Your task to perform on an android device: remove spam from my inbox in the gmail app Image 0: 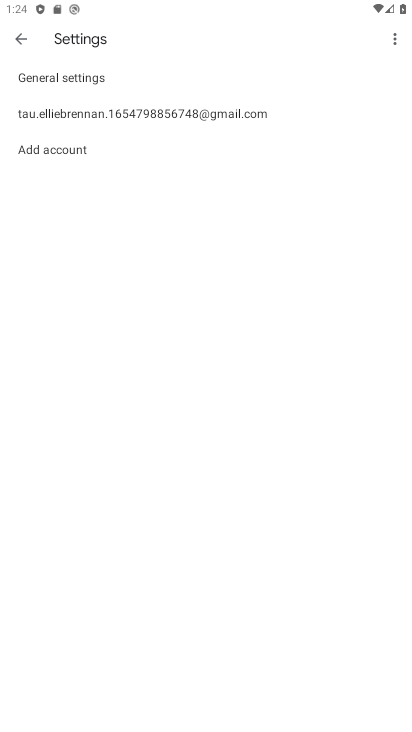
Step 0: click (22, 36)
Your task to perform on an android device: remove spam from my inbox in the gmail app Image 1: 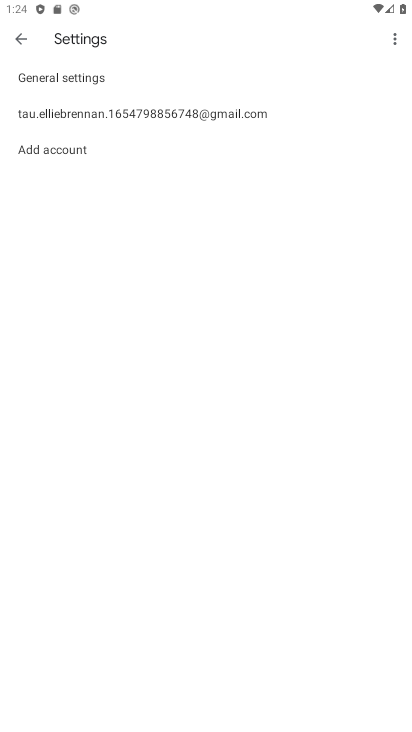
Step 1: click (29, 36)
Your task to perform on an android device: remove spam from my inbox in the gmail app Image 2: 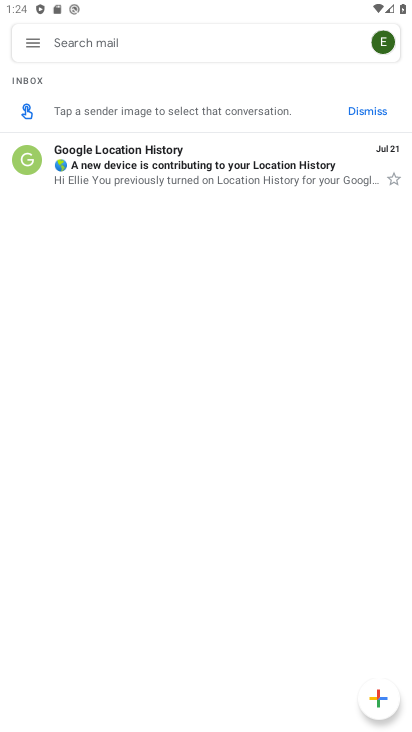
Step 2: click (22, 30)
Your task to perform on an android device: remove spam from my inbox in the gmail app Image 3: 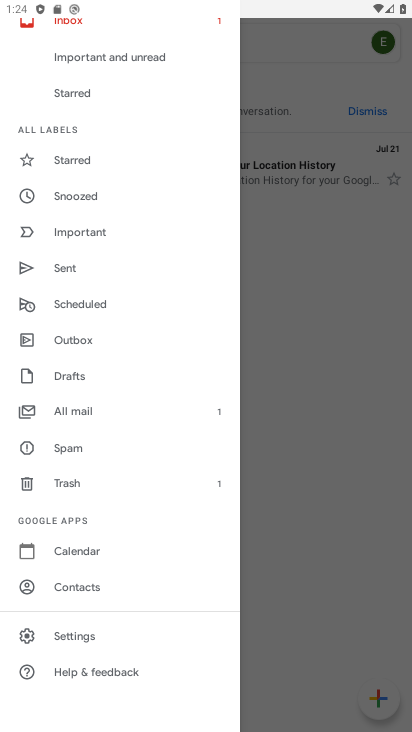
Step 3: click (75, 449)
Your task to perform on an android device: remove spam from my inbox in the gmail app Image 4: 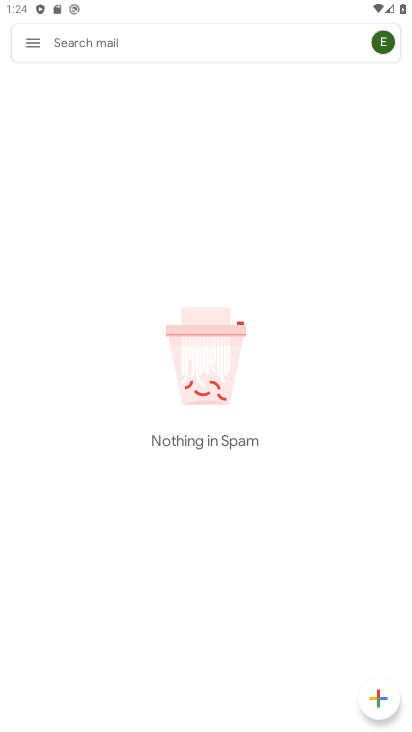
Step 4: task complete